Your task to perform on an android device: Open Yahoo.com Image 0: 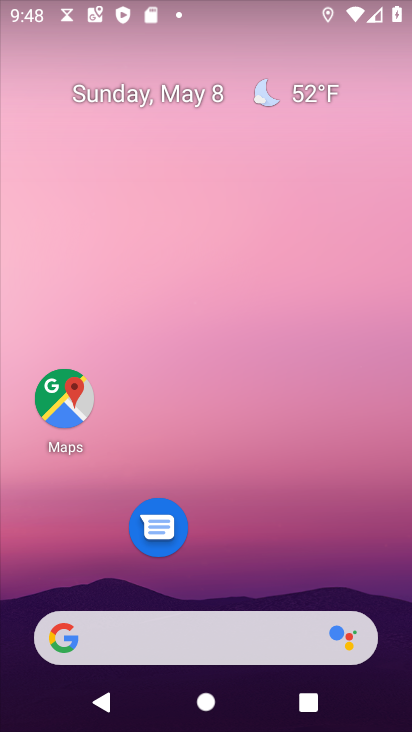
Step 0: drag from (280, 526) to (262, 51)
Your task to perform on an android device: Open Yahoo.com Image 1: 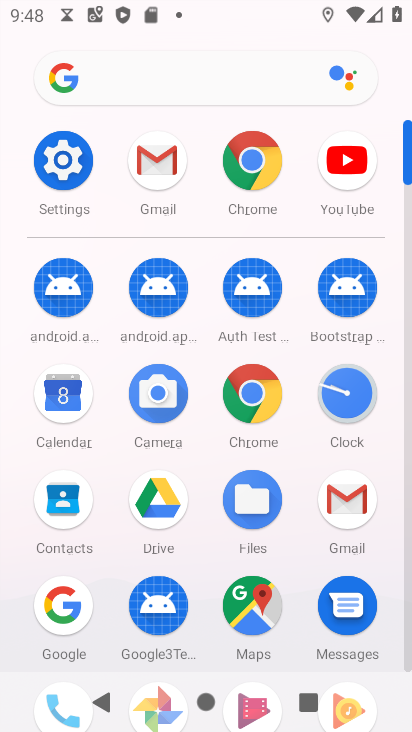
Step 1: click (255, 162)
Your task to perform on an android device: Open Yahoo.com Image 2: 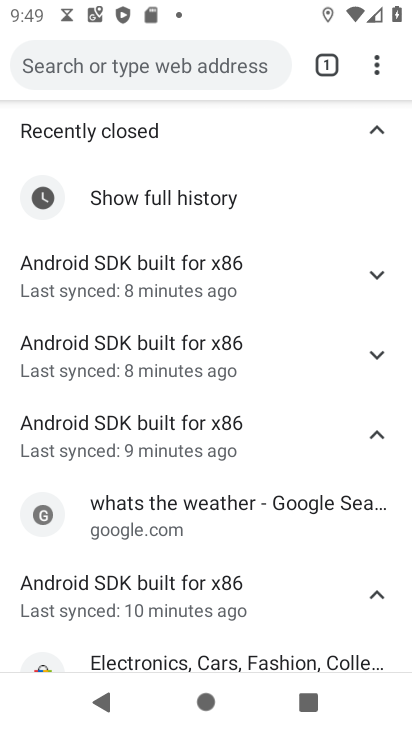
Step 2: click (227, 67)
Your task to perform on an android device: Open Yahoo.com Image 3: 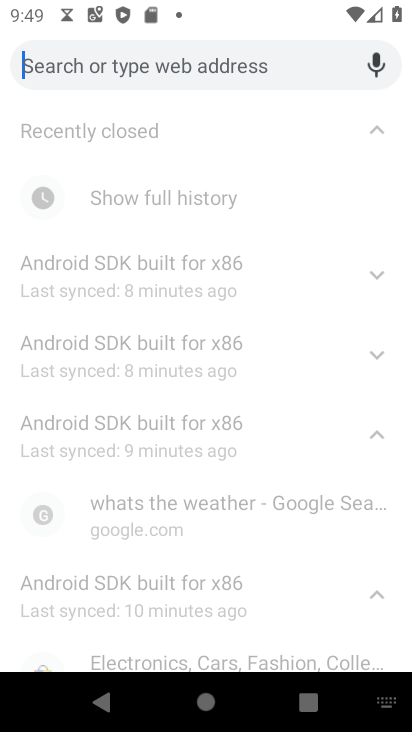
Step 3: type "Yahoo.com"
Your task to perform on an android device: Open Yahoo.com Image 4: 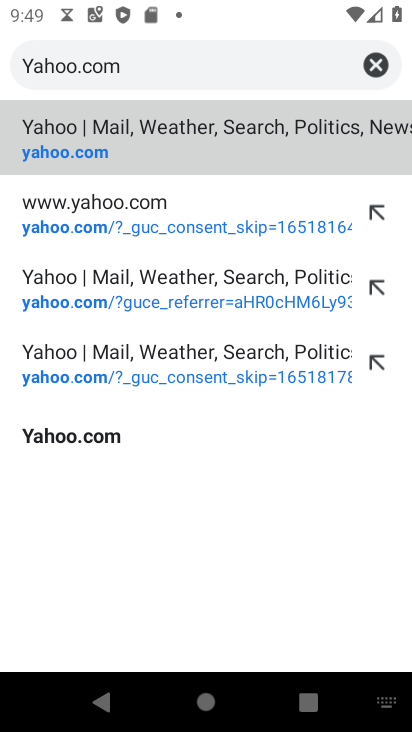
Step 4: click (108, 435)
Your task to perform on an android device: Open Yahoo.com Image 5: 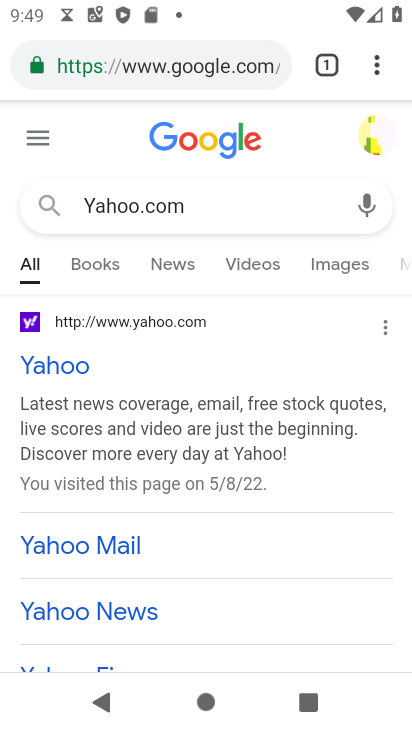
Step 5: click (60, 370)
Your task to perform on an android device: Open Yahoo.com Image 6: 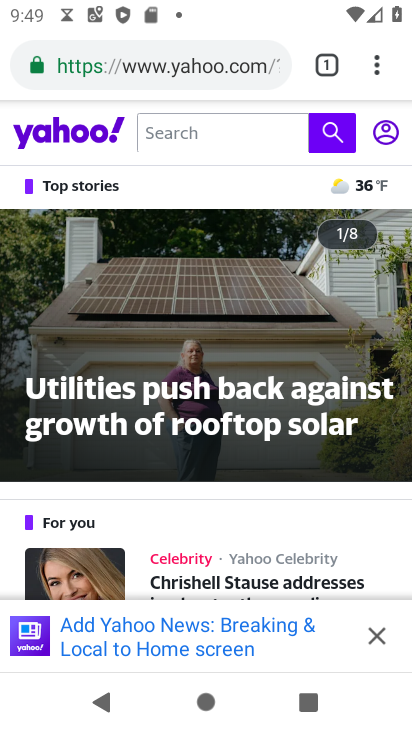
Step 6: task complete